Your task to perform on an android device: Open calendar and show me the second week of next month Image 0: 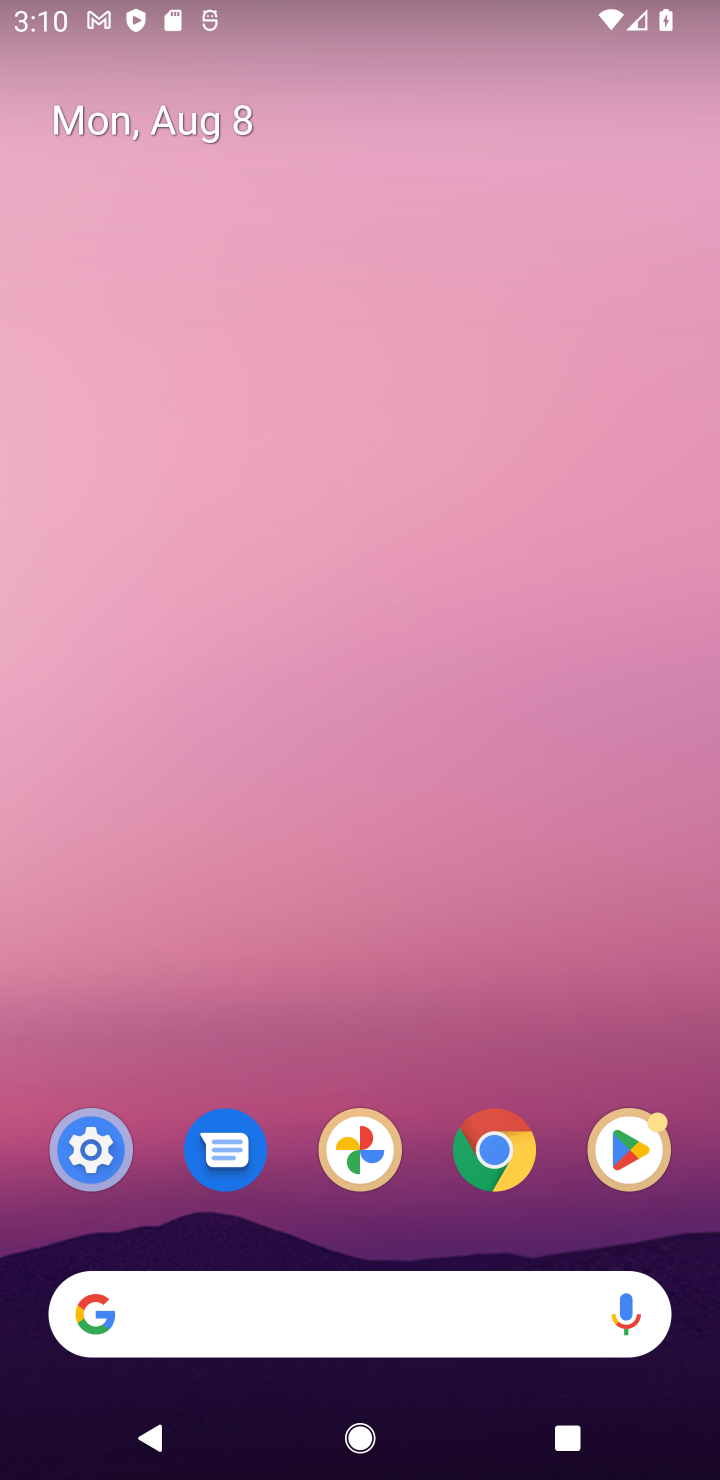
Step 0: drag from (304, 1243) to (303, 128)
Your task to perform on an android device: Open calendar and show me the second week of next month Image 1: 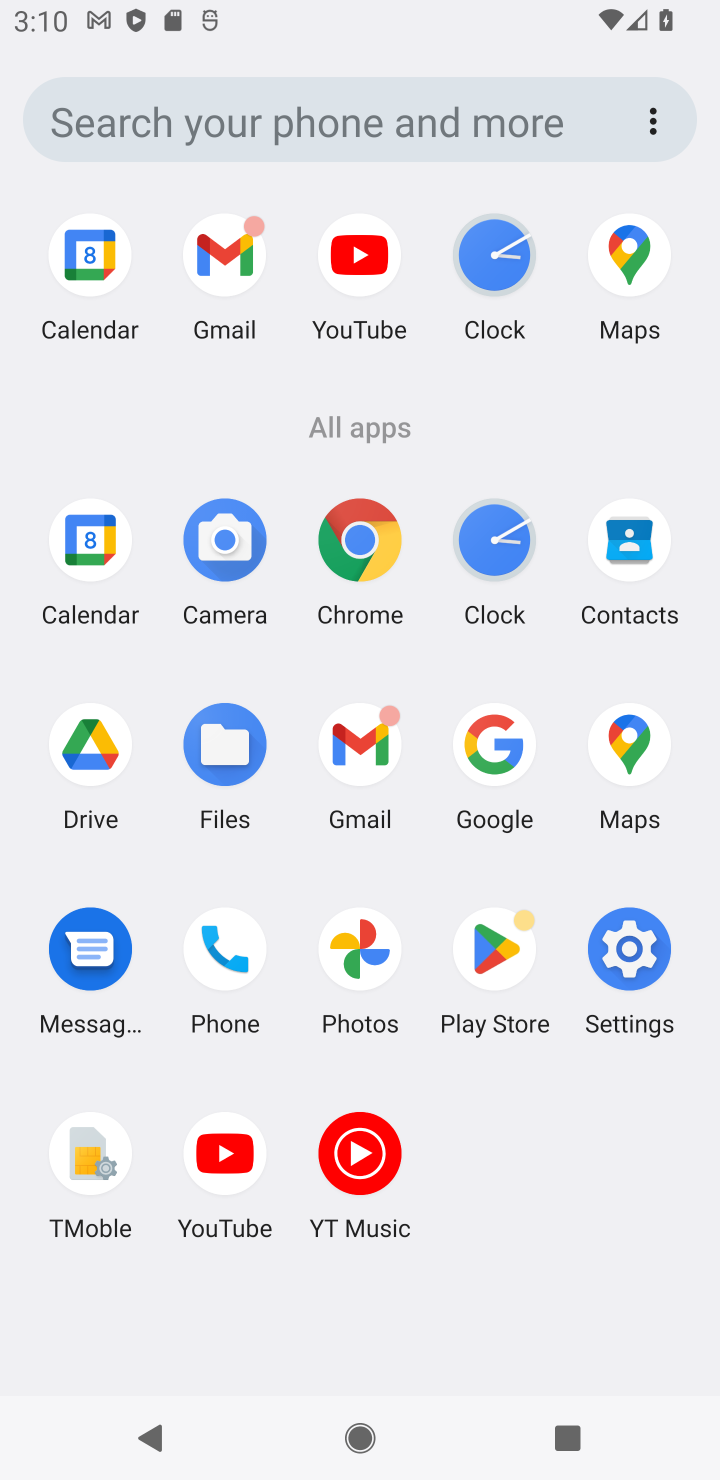
Step 1: click (103, 241)
Your task to perform on an android device: Open calendar and show me the second week of next month Image 2: 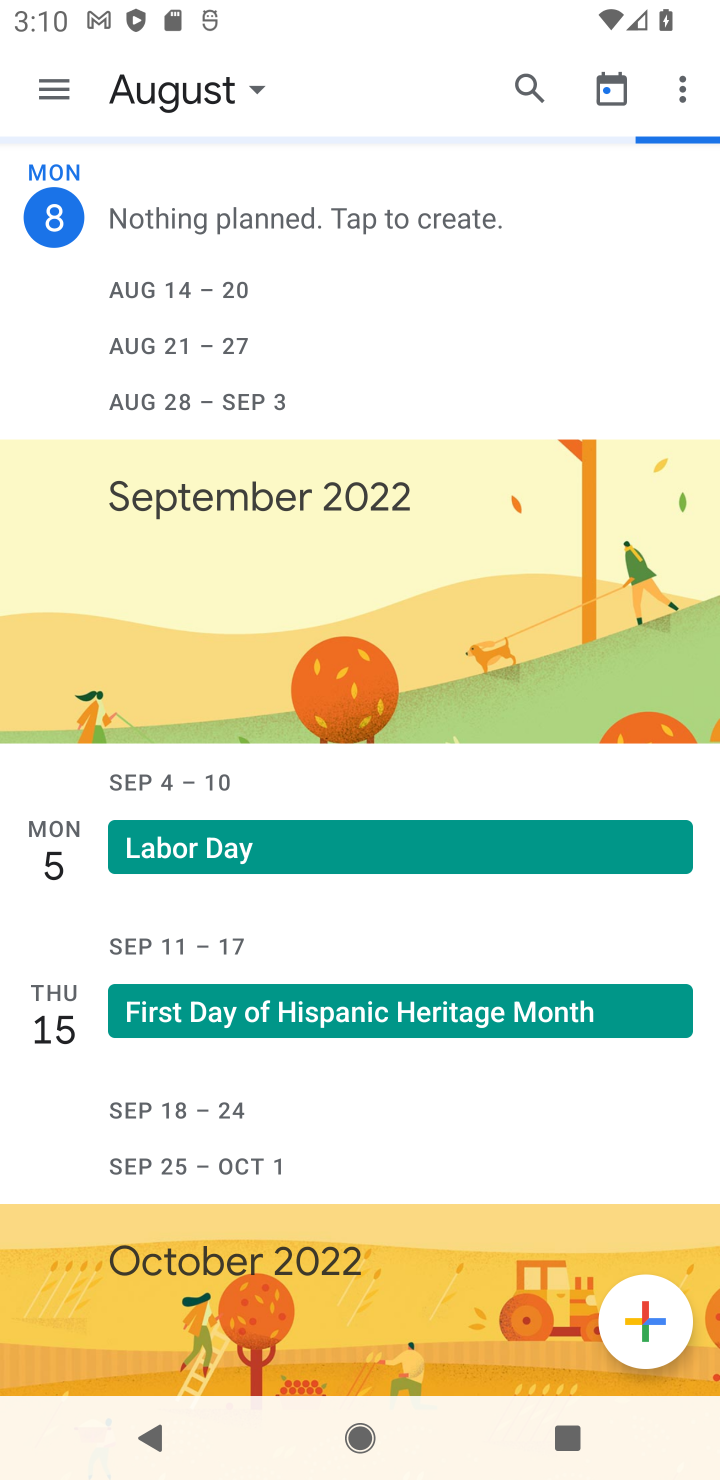
Step 2: task complete